Your task to perform on an android device: What's the weather today? Image 0: 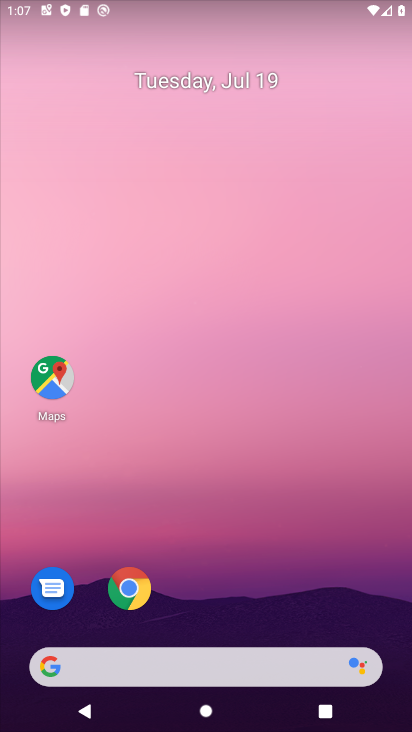
Step 0: click (127, 654)
Your task to perform on an android device: What's the weather today? Image 1: 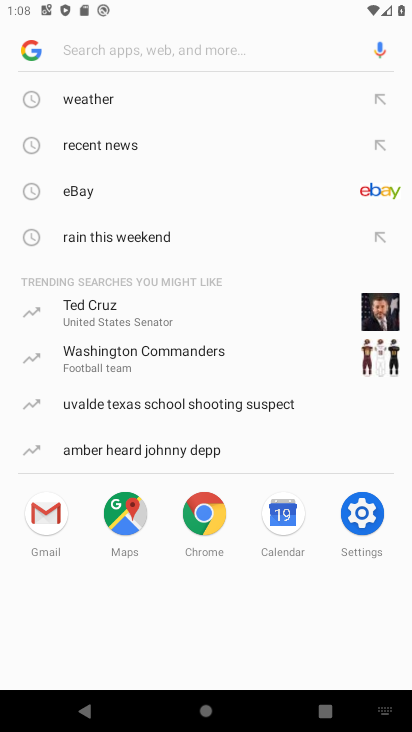
Step 1: type "What's the weather today?"
Your task to perform on an android device: What's the weather today? Image 2: 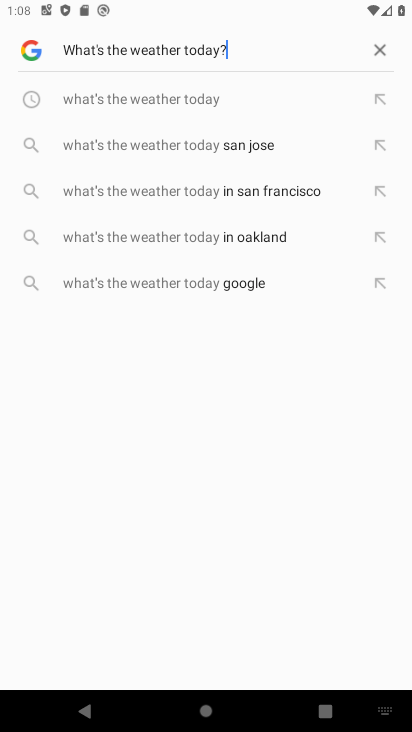
Step 2: type ""
Your task to perform on an android device: What's the weather today? Image 3: 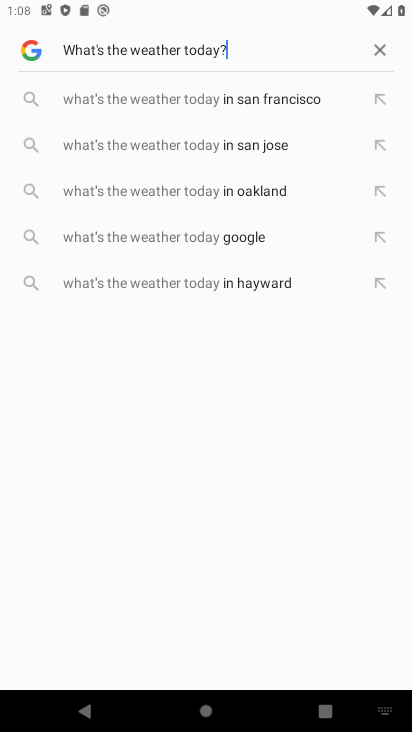
Step 3: task complete